Your task to perform on an android device: Search for electric lawnmowers on Home Depot Image 0: 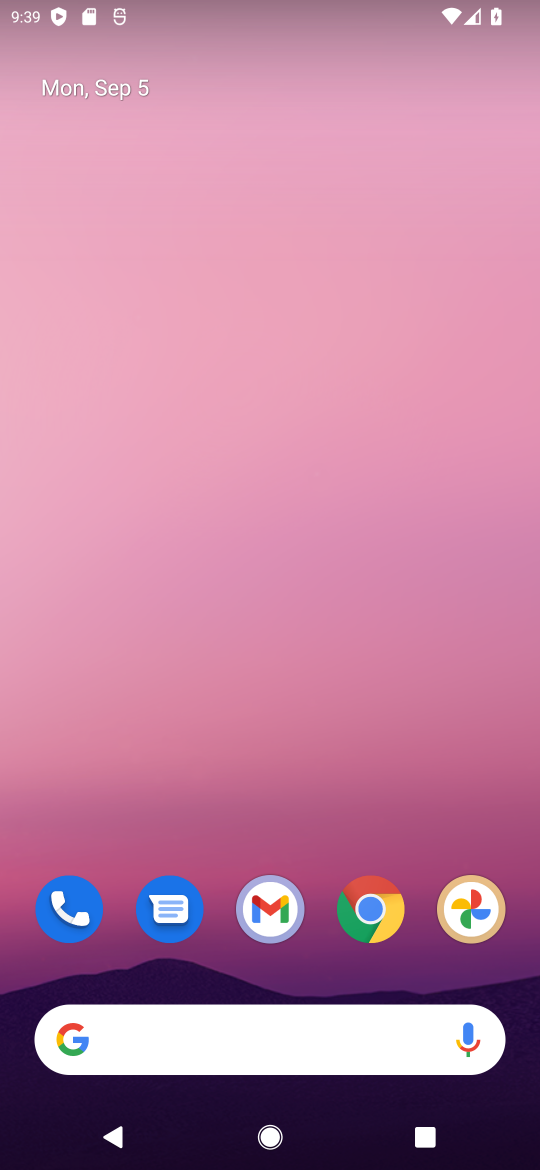
Step 0: click (268, 939)
Your task to perform on an android device: Search for electric lawnmowers on Home Depot Image 1: 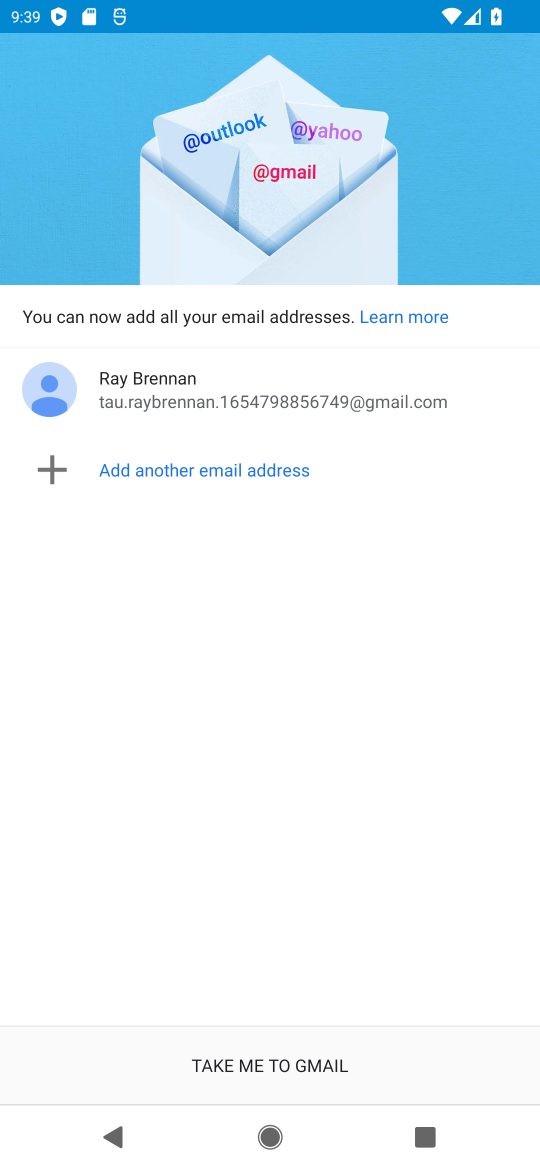
Step 1: click (262, 1054)
Your task to perform on an android device: Search for electric lawnmowers on Home Depot Image 2: 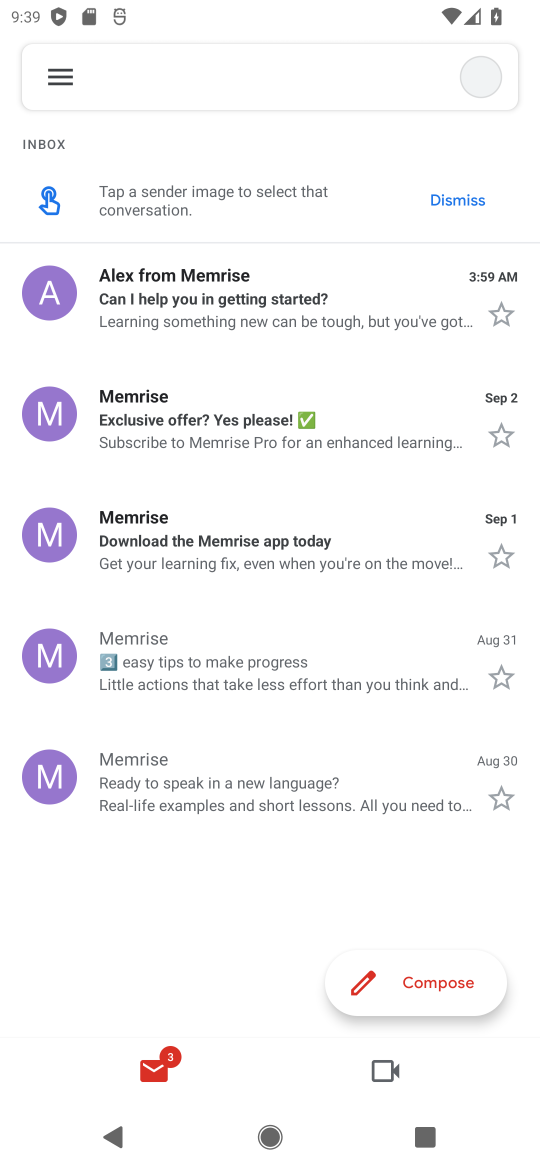
Step 2: task complete